Your task to perform on an android device: allow notifications from all sites in the chrome app Image 0: 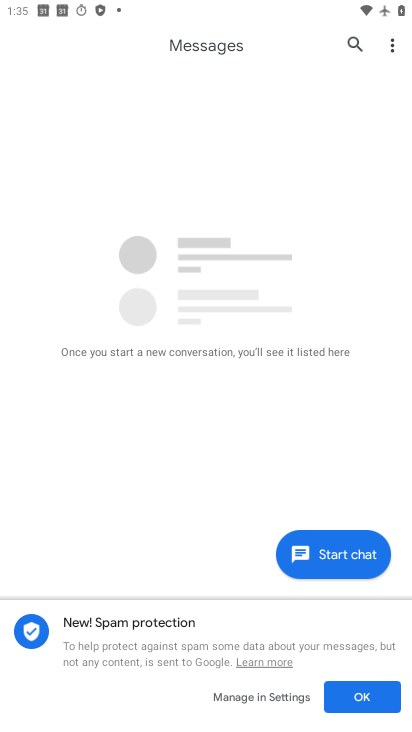
Step 0: press home button
Your task to perform on an android device: allow notifications from all sites in the chrome app Image 1: 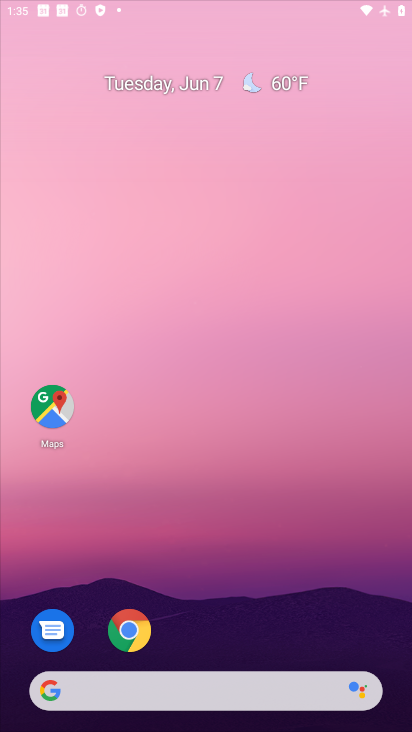
Step 1: drag from (339, 607) to (304, 82)
Your task to perform on an android device: allow notifications from all sites in the chrome app Image 2: 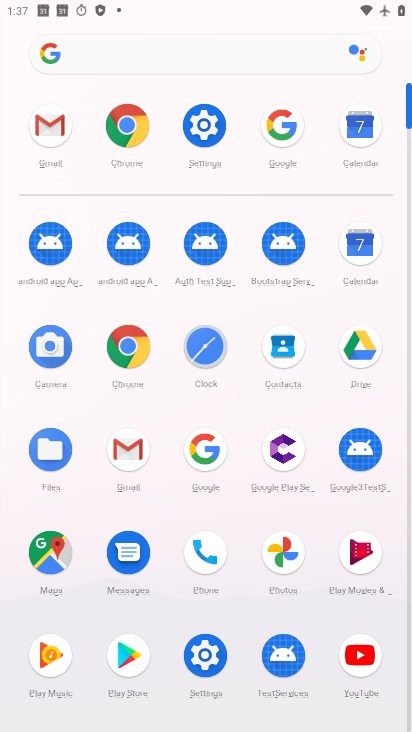
Step 2: click (121, 339)
Your task to perform on an android device: allow notifications from all sites in the chrome app Image 3: 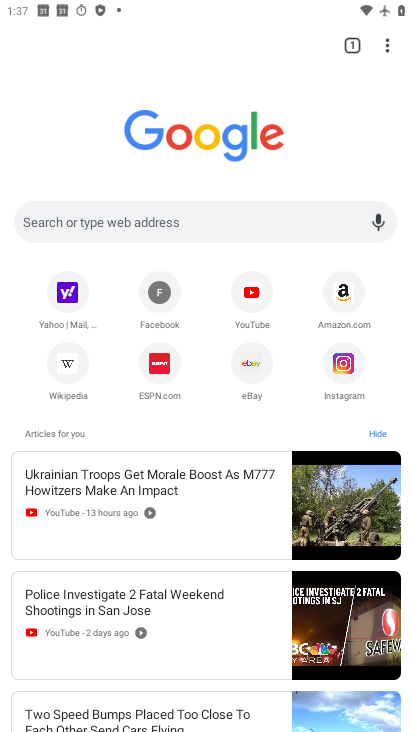
Step 3: click (393, 36)
Your task to perform on an android device: allow notifications from all sites in the chrome app Image 4: 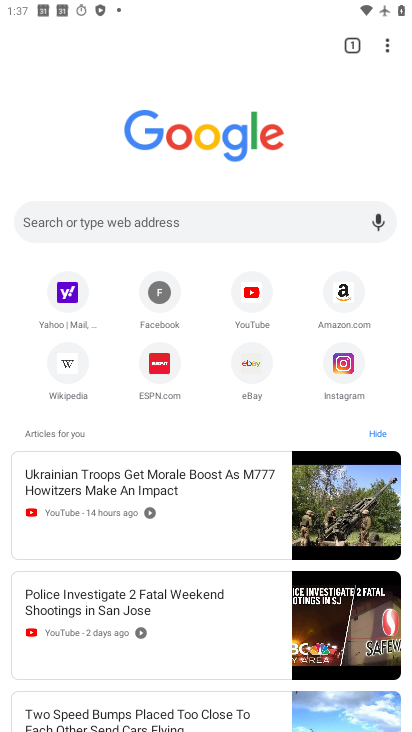
Step 4: click (387, 38)
Your task to perform on an android device: allow notifications from all sites in the chrome app Image 5: 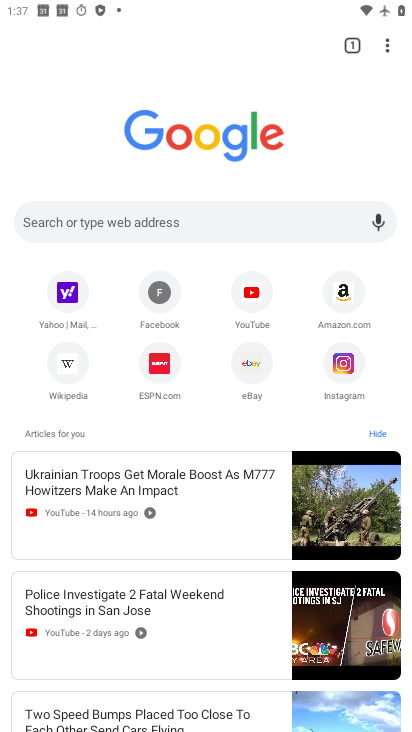
Step 5: click (386, 40)
Your task to perform on an android device: allow notifications from all sites in the chrome app Image 6: 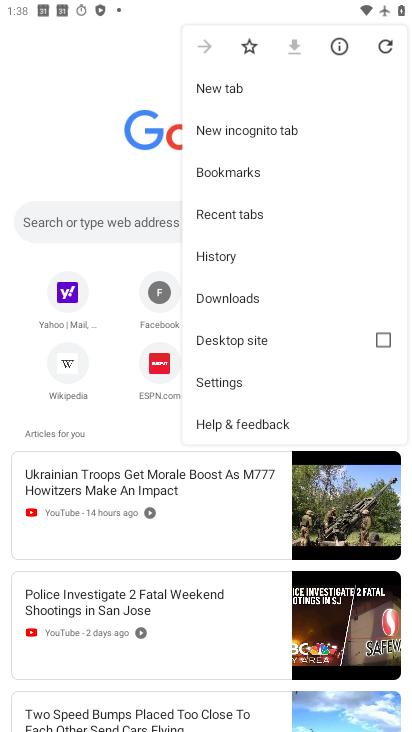
Step 6: click (222, 384)
Your task to perform on an android device: allow notifications from all sites in the chrome app Image 7: 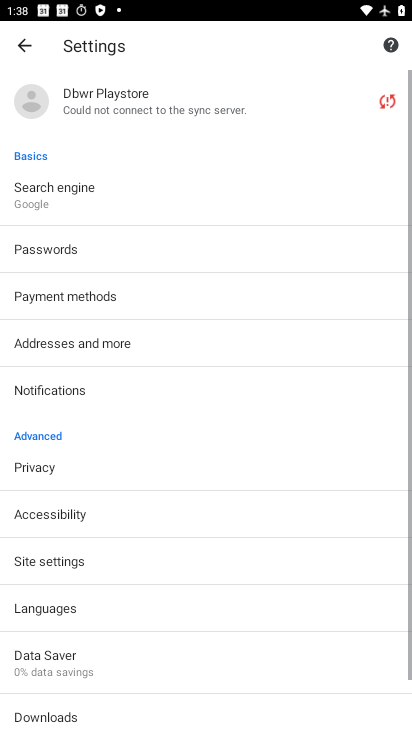
Step 7: click (35, 389)
Your task to perform on an android device: allow notifications from all sites in the chrome app Image 8: 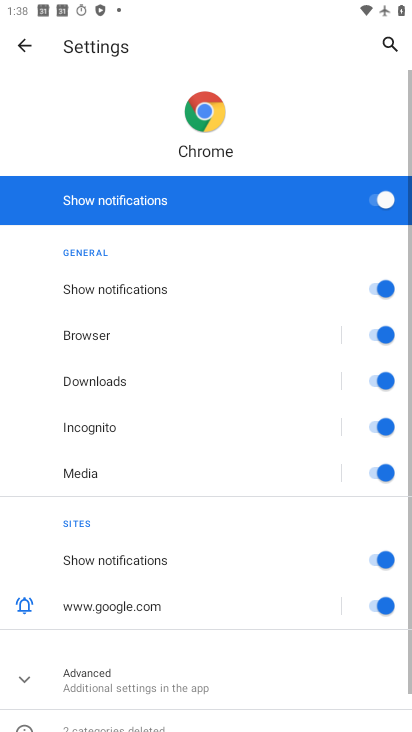
Step 8: task complete